Your task to perform on an android device: Open settings on Google Maps Image 0: 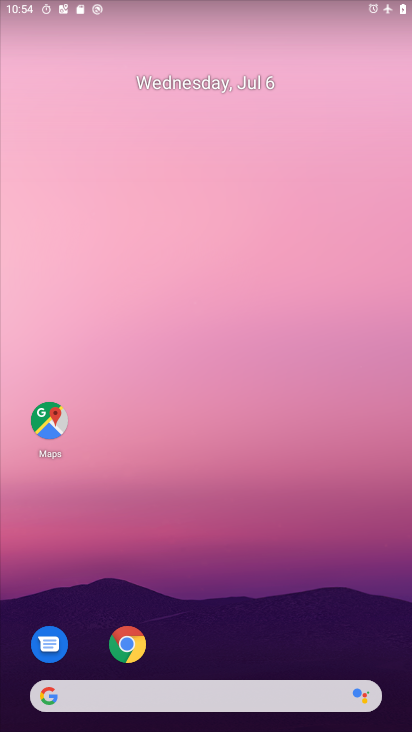
Step 0: drag from (254, 636) to (252, 148)
Your task to perform on an android device: Open settings on Google Maps Image 1: 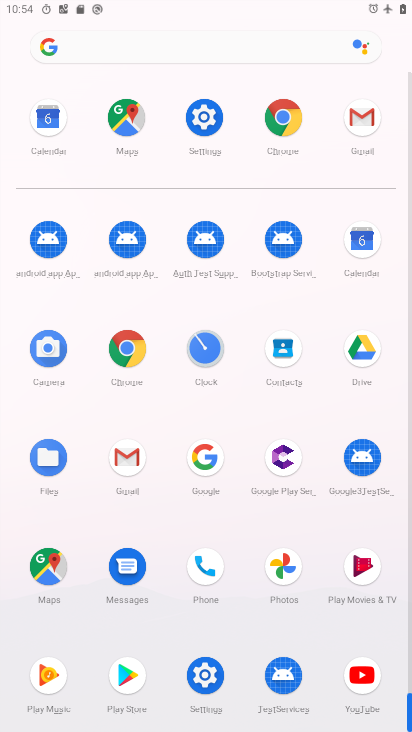
Step 1: drag from (261, 515) to (248, 312)
Your task to perform on an android device: Open settings on Google Maps Image 2: 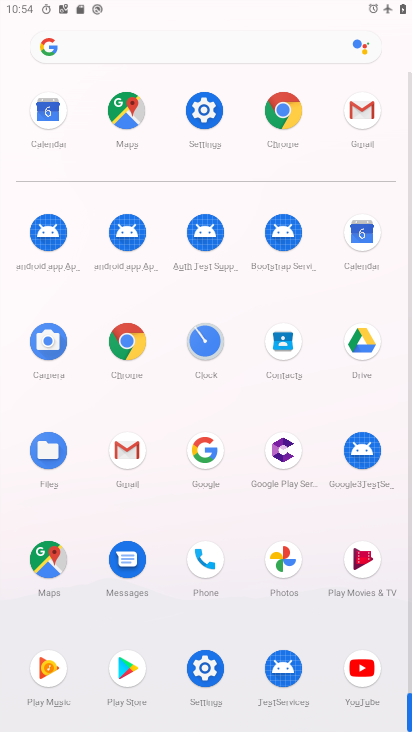
Step 2: click (49, 570)
Your task to perform on an android device: Open settings on Google Maps Image 3: 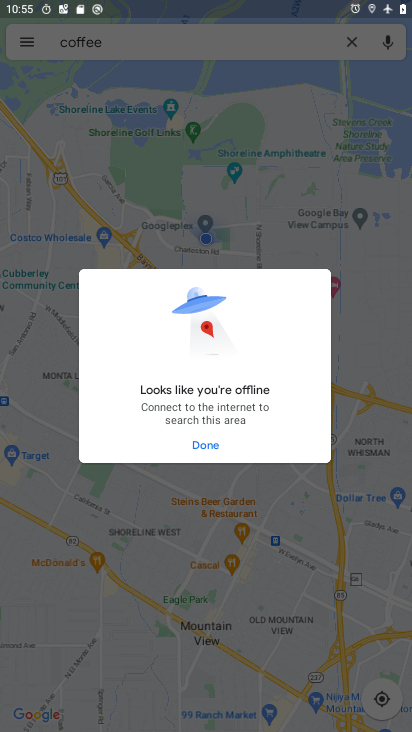
Step 3: task complete